Your task to perform on an android device: Go to sound settings Image 0: 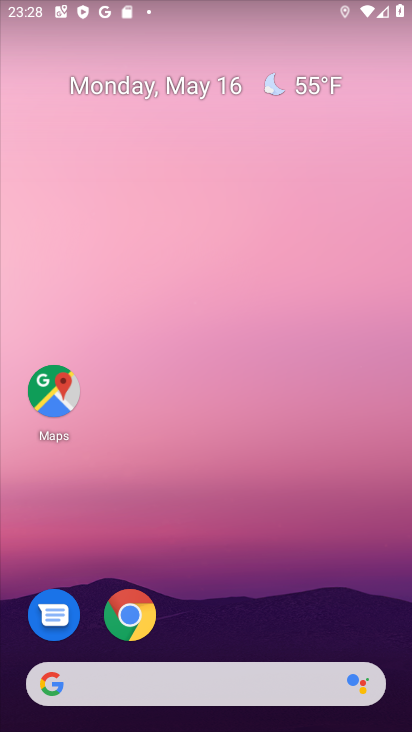
Step 0: drag from (197, 640) to (133, 16)
Your task to perform on an android device: Go to sound settings Image 1: 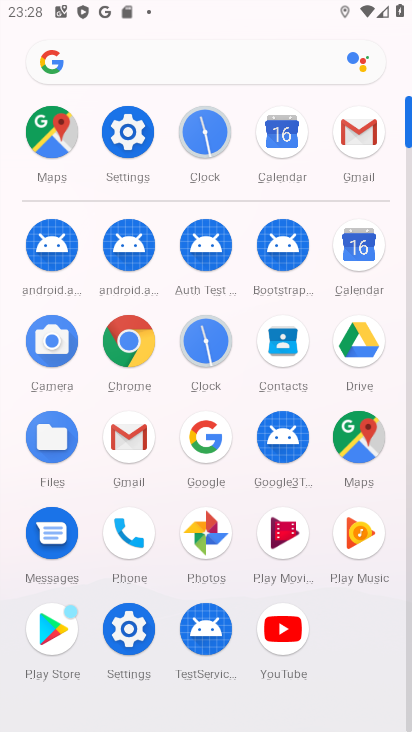
Step 1: click (128, 146)
Your task to perform on an android device: Go to sound settings Image 2: 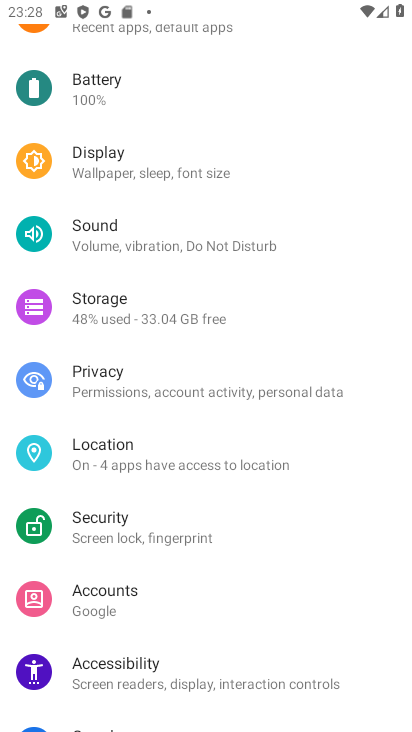
Step 2: click (118, 227)
Your task to perform on an android device: Go to sound settings Image 3: 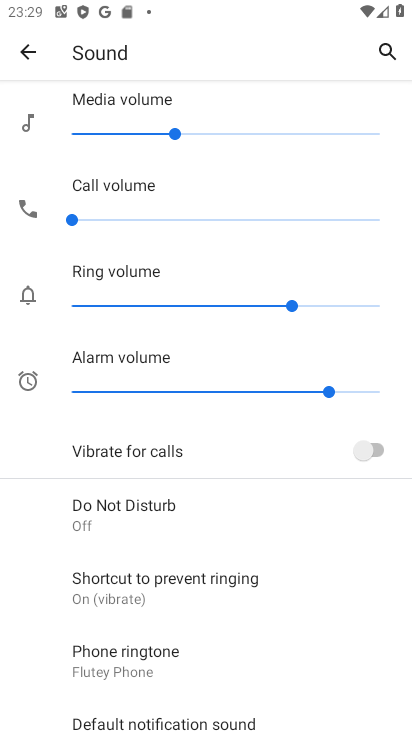
Step 3: task complete